Your task to perform on an android device: change timer sound Image 0: 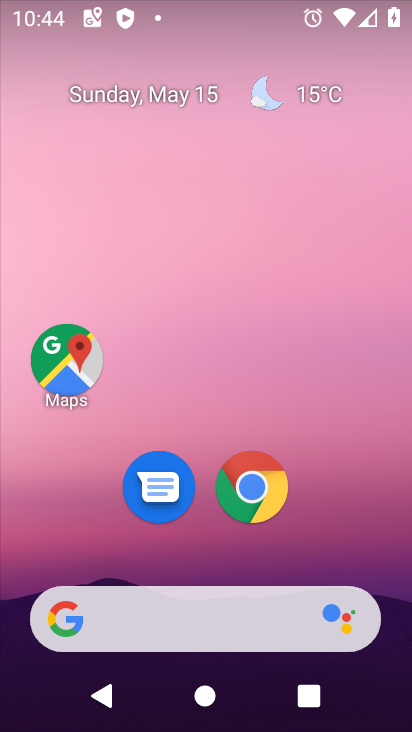
Step 0: drag from (400, 615) to (299, 172)
Your task to perform on an android device: change timer sound Image 1: 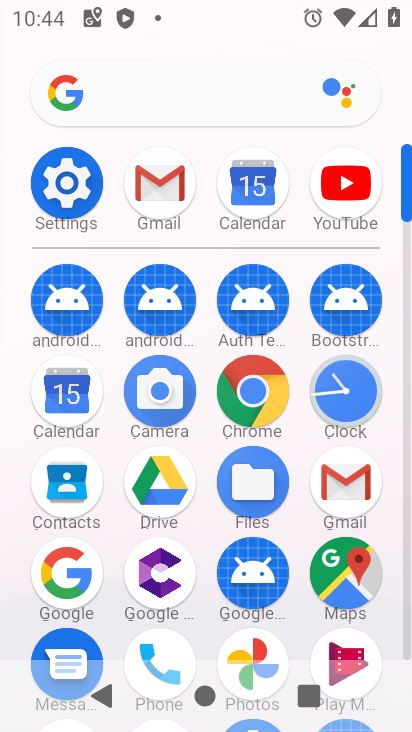
Step 1: click (409, 645)
Your task to perform on an android device: change timer sound Image 2: 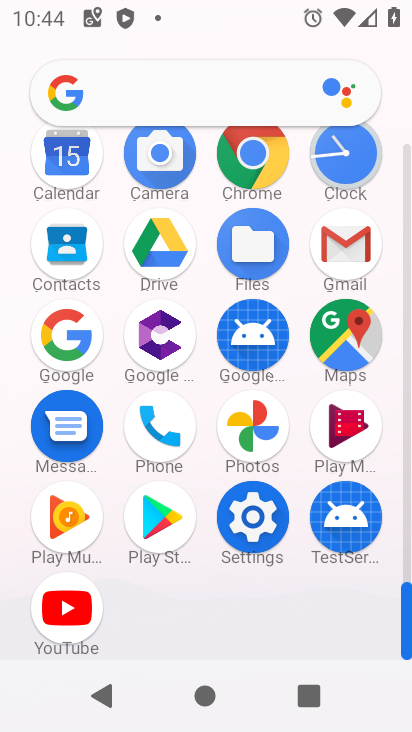
Step 2: click (345, 153)
Your task to perform on an android device: change timer sound Image 3: 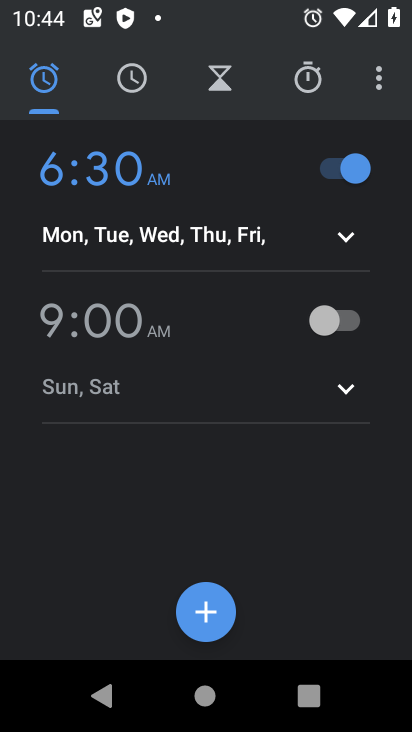
Step 3: click (371, 80)
Your task to perform on an android device: change timer sound Image 4: 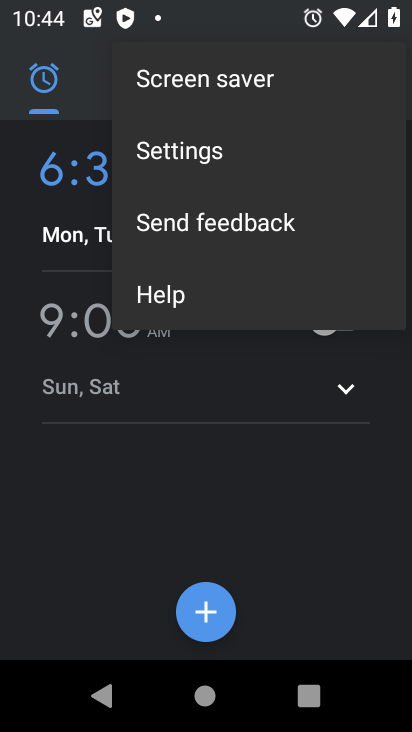
Step 4: click (171, 149)
Your task to perform on an android device: change timer sound Image 5: 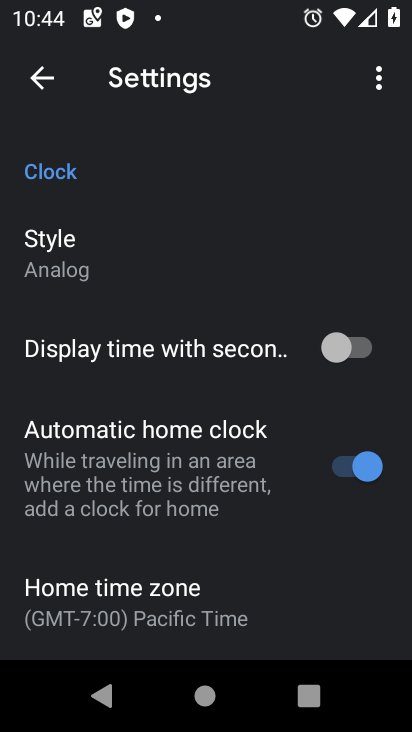
Step 5: drag from (275, 627) to (265, 261)
Your task to perform on an android device: change timer sound Image 6: 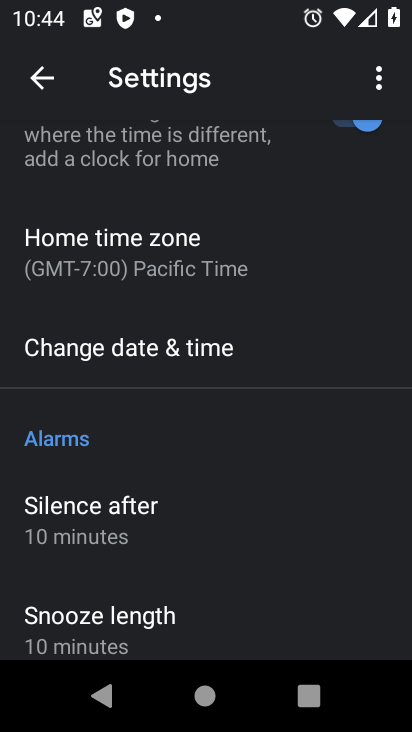
Step 6: drag from (174, 587) to (220, 188)
Your task to perform on an android device: change timer sound Image 7: 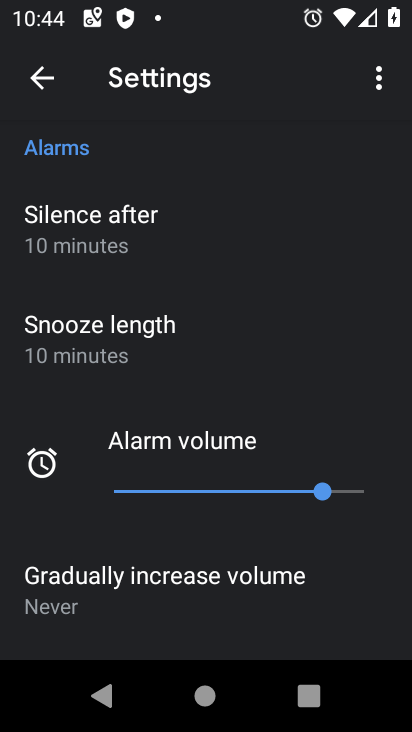
Step 7: drag from (194, 602) to (251, 149)
Your task to perform on an android device: change timer sound Image 8: 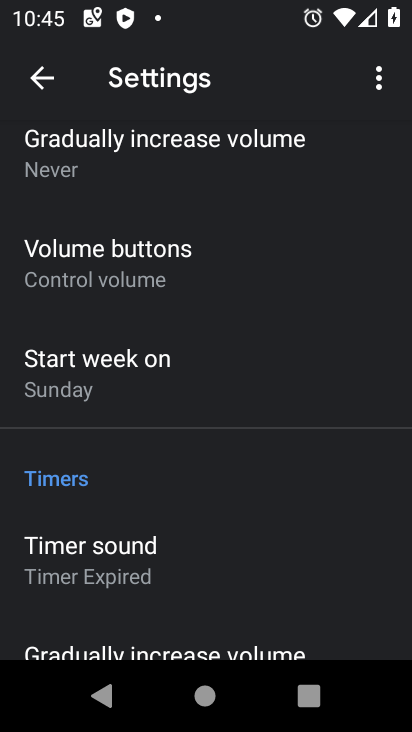
Step 8: click (67, 564)
Your task to perform on an android device: change timer sound Image 9: 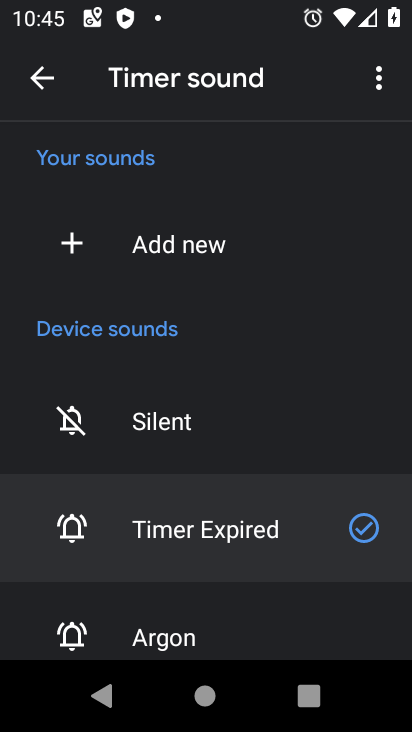
Step 9: drag from (282, 593) to (266, 276)
Your task to perform on an android device: change timer sound Image 10: 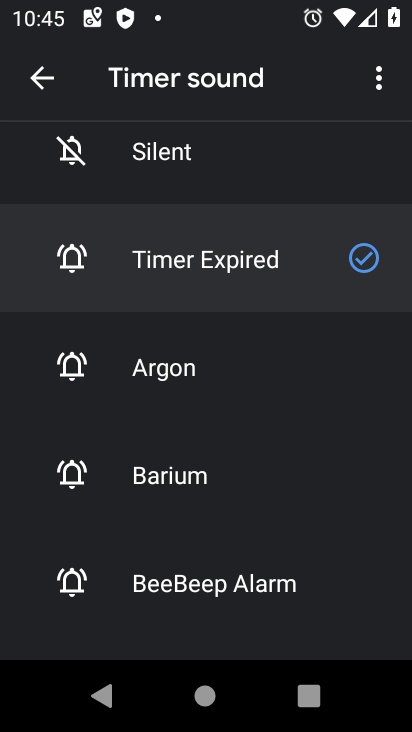
Step 10: click (206, 583)
Your task to perform on an android device: change timer sound Image 11: 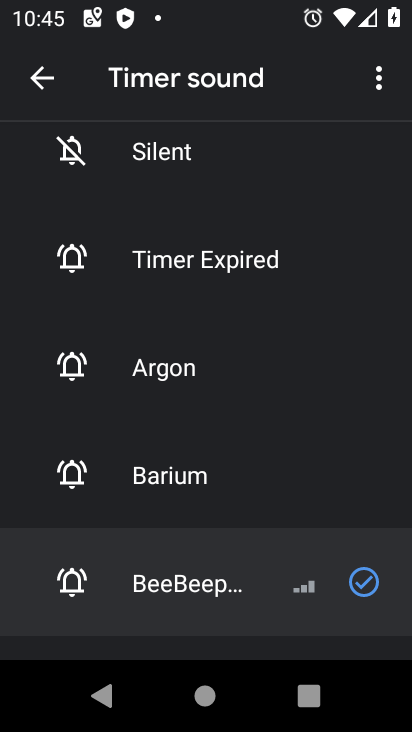
Step 11: task complete